Your task to perform on an android device: open wifi settings Image 0: 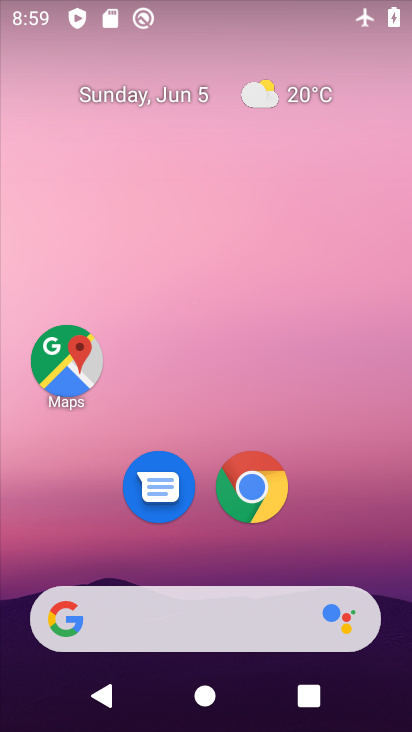
Step 0: drag from (242, 542) to (248, 295)
Your task to perform on an android device: open wifi settings Image 1: 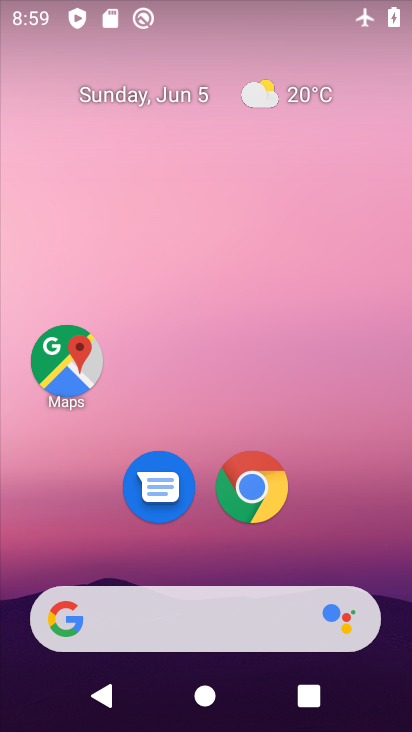
Step 1: drag from (190, 579) to (200, 221)
Your task to perform on an android device: open wifi settings Image 2: 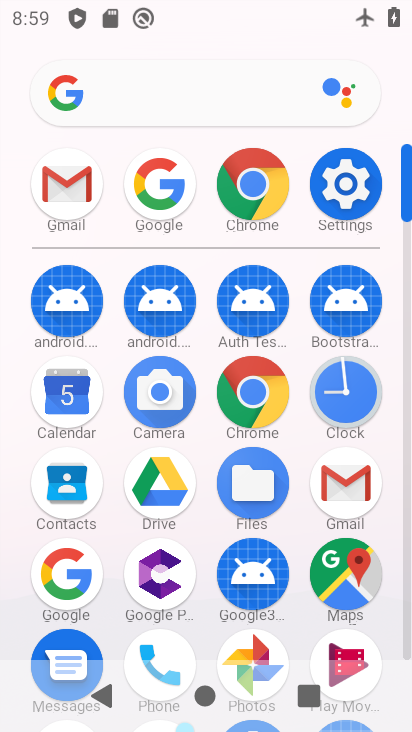
Step 2: click (344, 193)
Your task to perform on an android device: open wifi settings Image 3: 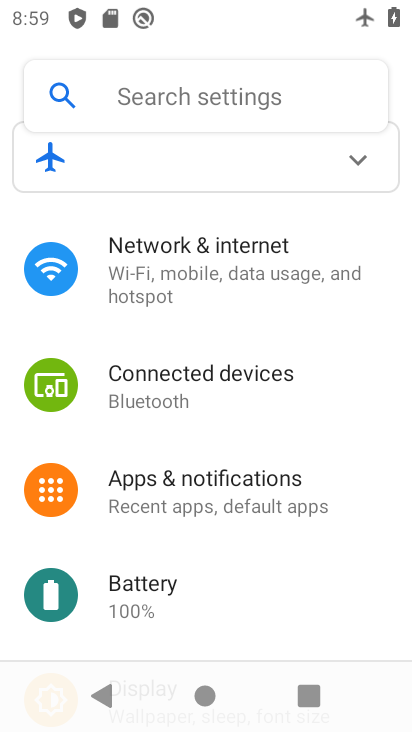
Step 3: click (226, 258)
Your task to perform on an android device: open wifi settings Image 4: 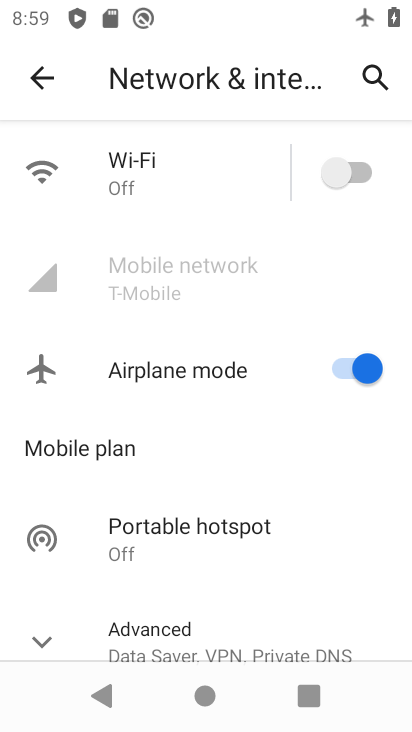
Step 4: click (212, 155)
Your task to perform on an android device: open wifi settings Image 5: 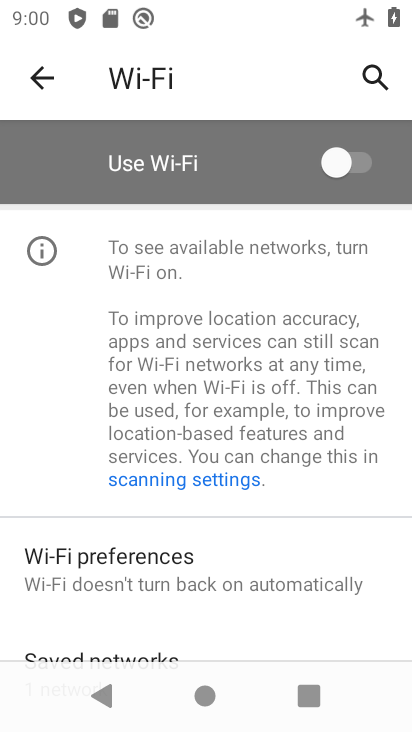
Step 5: task complete